Your task to perform on an android device: toggle sleep mode Image 0: 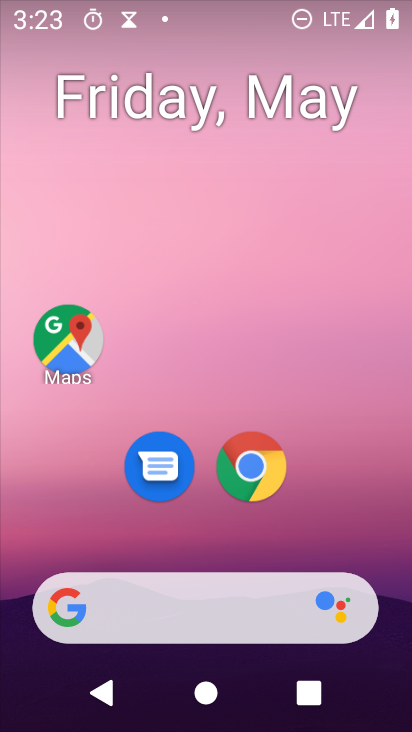
Step 0: drag from (364, 479) to (399, 25)
Your task to perform on an android device: toggle sleep mode Image 1: 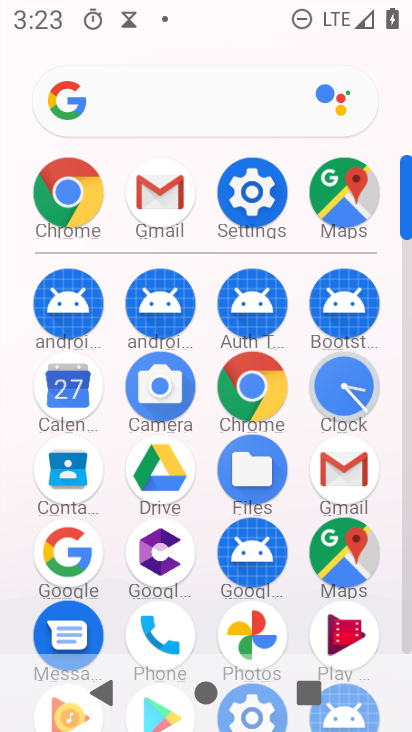
Step 1: click (350, 402)
Your task to perform on an android device: toggle sleep mode Image 2: 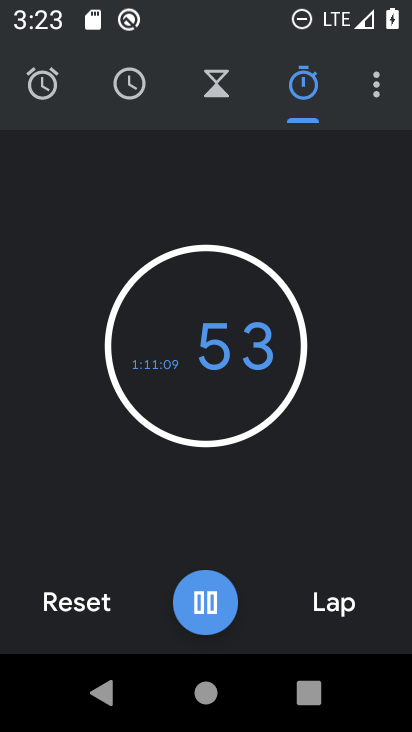
Step 2: click (372, 99)
Your task to perform on an android device: toggle sleep mode Image 3: 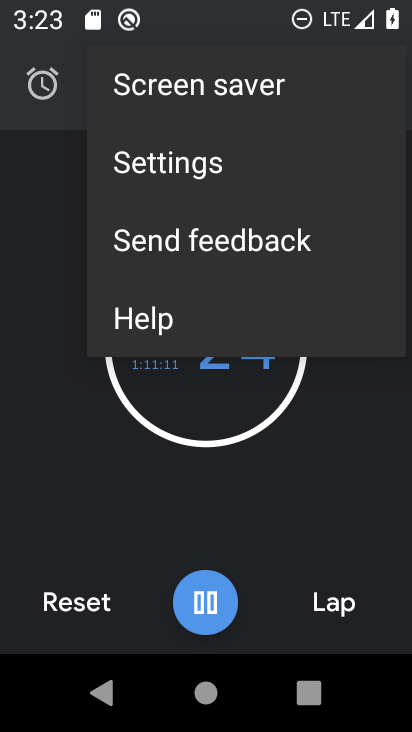
Step 3: click (218, 163)
Your task to perform on an android device: toggle sleep mode Image 4: 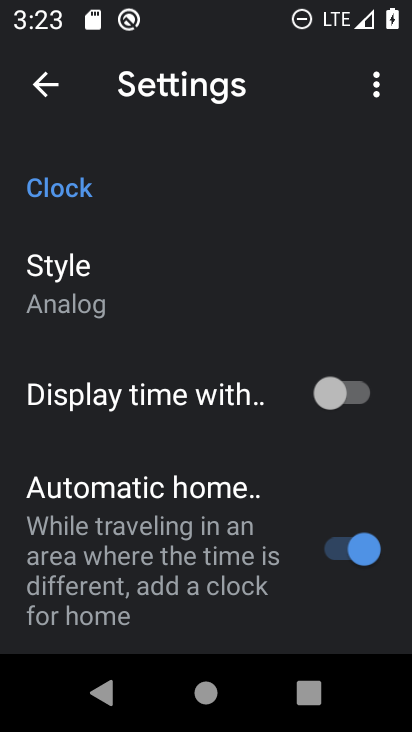
Step 4: drag from (164, 570) to (203, 172)
Your task to perform on an android device: toggle sleep mode Image 5: 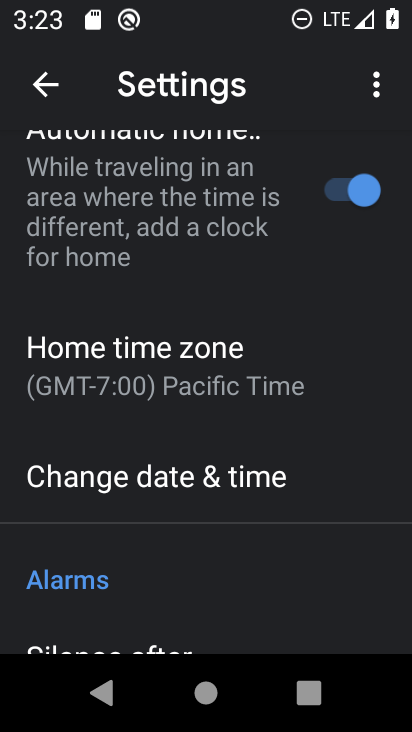
Step 5: drag from (194, 506) to (186, 155)
Your task to perform on an android device: toggle sleep mode Image 6: 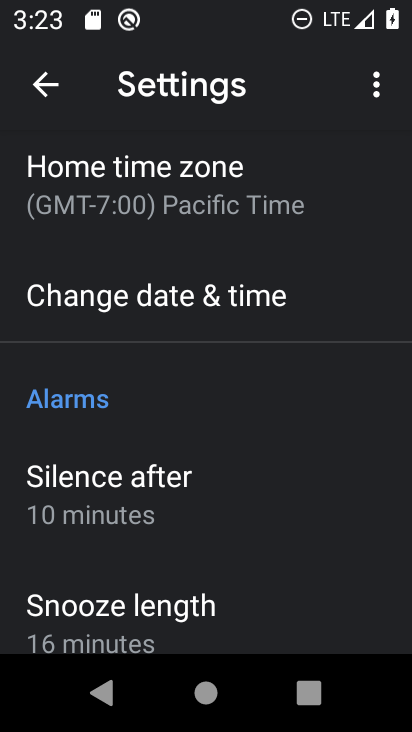
Step 6: drag from (206, 605) to (183, 299)
Your task to perform on an android device: toggle sleep mode Image 7: 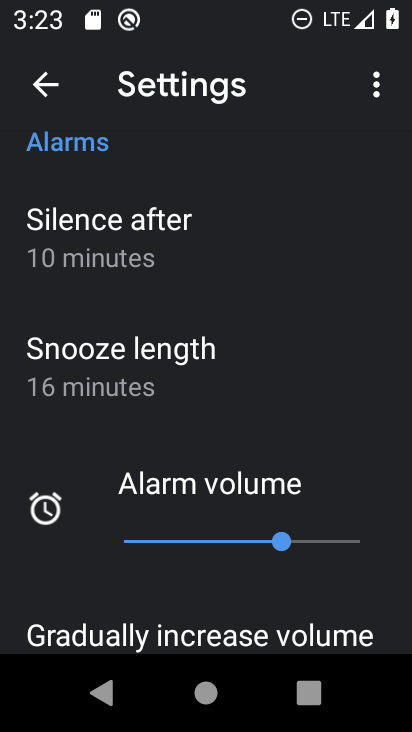
Step 7: press home button
Your task to perform on an android device: toggle sleep mode Image 8: 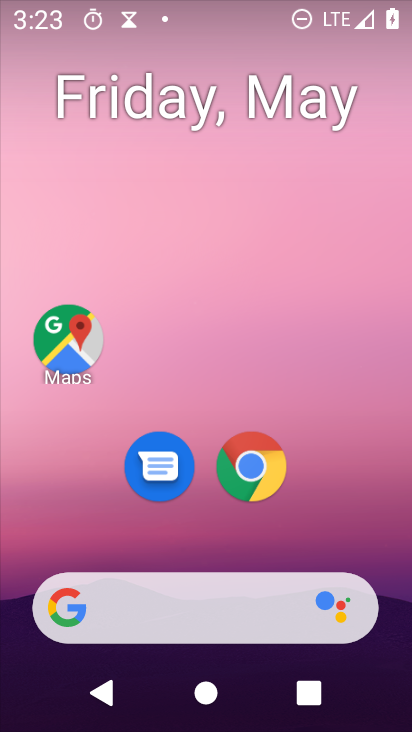
Step 8: drag from (331, 500) to (326, 131)
Your task to perform on an android device: toggle sleep mode Image 9: 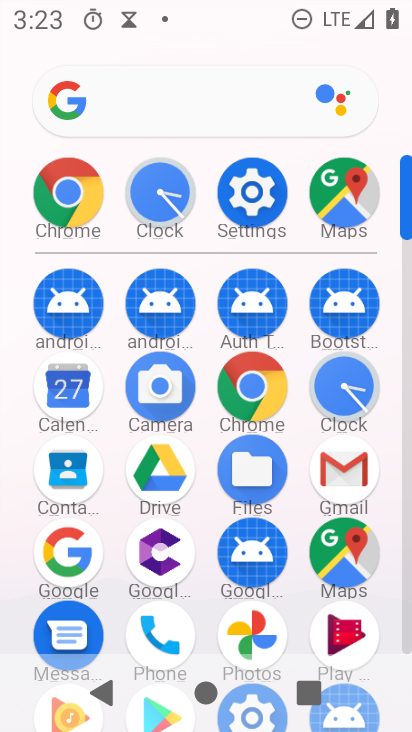
Step 9: click (270, 206)
Your task to perform on an android device: toggle sleep mode Image 10: 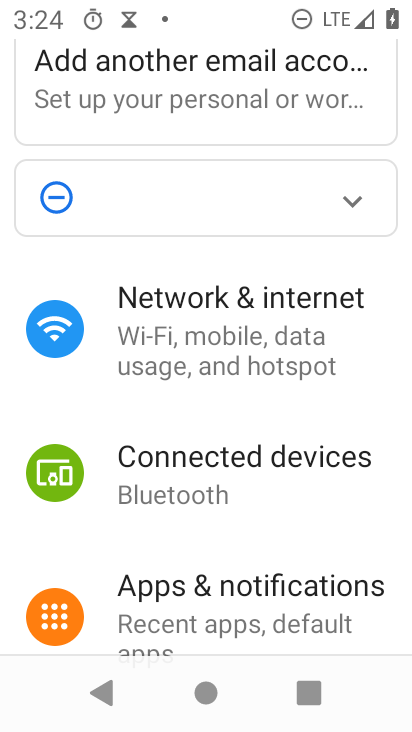
Step 10: drag from (199, 496) to (181, 234)
Your task to perform on an android device: toggle sleep mode Image 11: 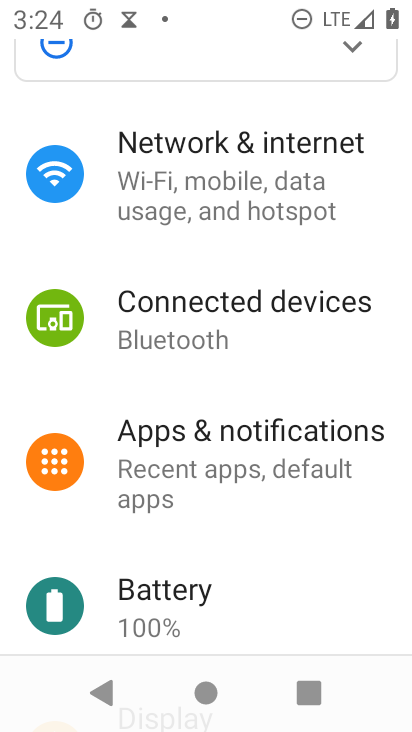
Step 11: drag from (277, 575) to (283, 251)
Your task to perform on an android device: toggle sleep mode Image 12: 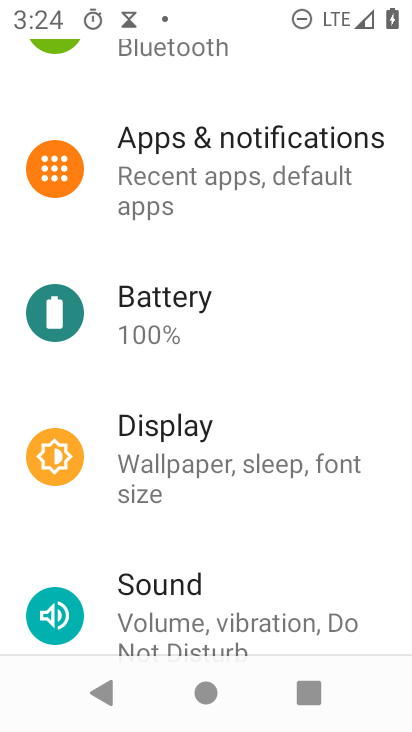
Step 12: drag from (190, 603) to (215, 270)
Your task to perform on an android device: toggle sleep mode Image 13: 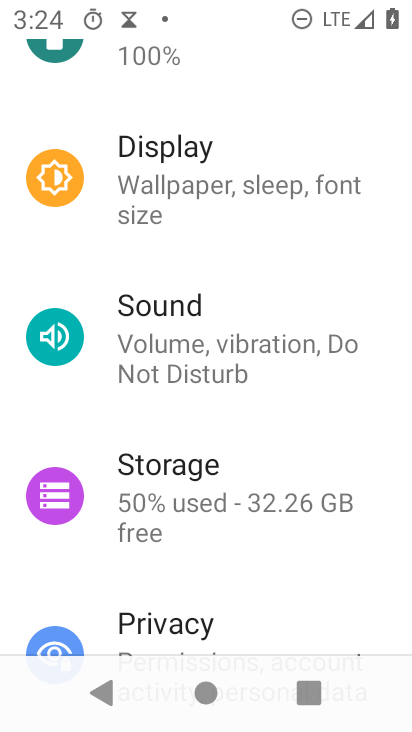
Step 13: drag from (252, 542) to (219, 250)
Your task to perform on an android device: toggle sleep mode Image 14: 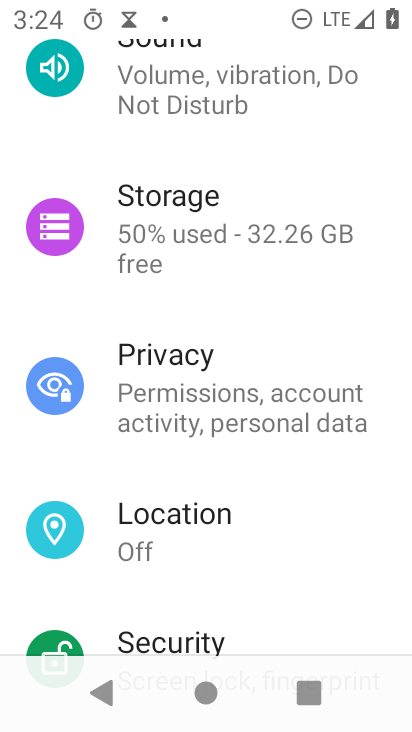
Step 14: drag from (243, 574) to (241, 257)
Your task to perform on an android device: toggle sleep mode Image 15: 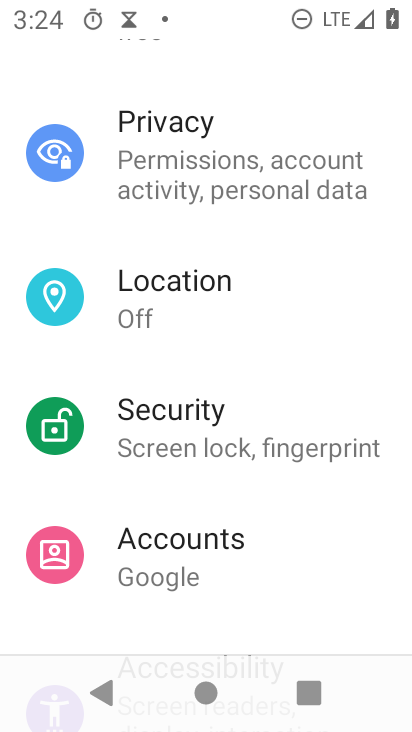
Step 15: drag from (268, 503) to (267, 132)
Your task to perform on an android device: toggle sleep mode Image 16: 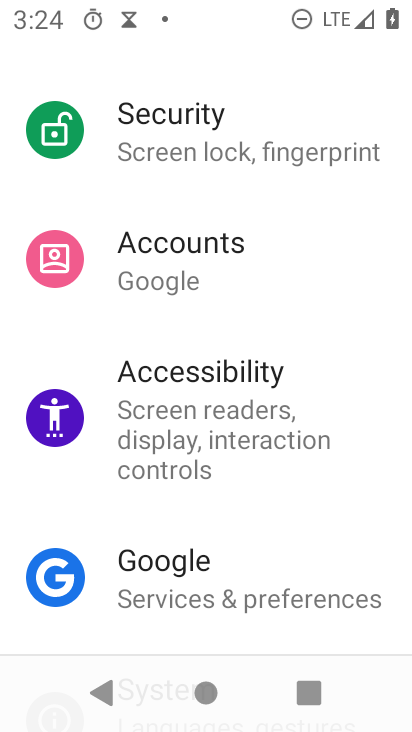
Step 16: drag from (270, 176) to (255, 506)
Your task to perform on an android device: toggle sleep mode Image 17: 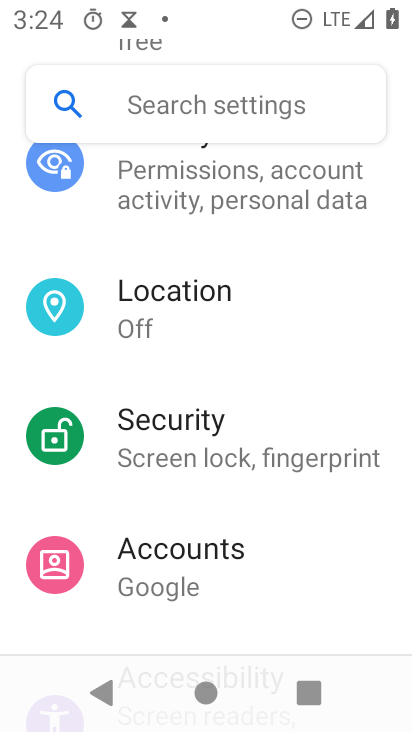
Step 17: drag from (258, 551) to (248, 191)
Your task to perform on an android device: toggle sleep mode Image 18: 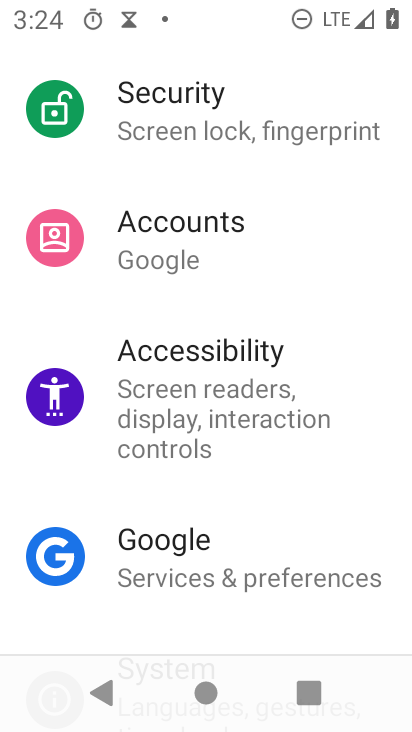
Step 18: drag from (222, 543) to (252, 190)
Your task to perform on an android device: toggle sleep mode Image 19: 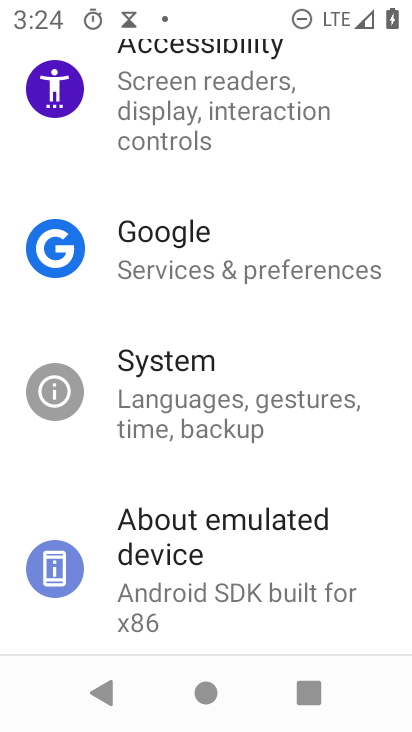
Step 19: drag from (226, 543) to (236, 182)
Your task to perform on an android device: toggle sleep mode Image 20: 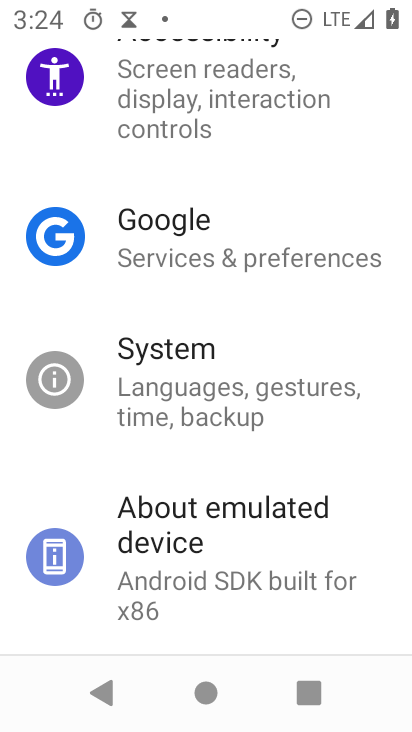
Step 20: drag from (233, 567) to (248, 239)
Your task to perform on an android device: toggle sleep mode Image 21: 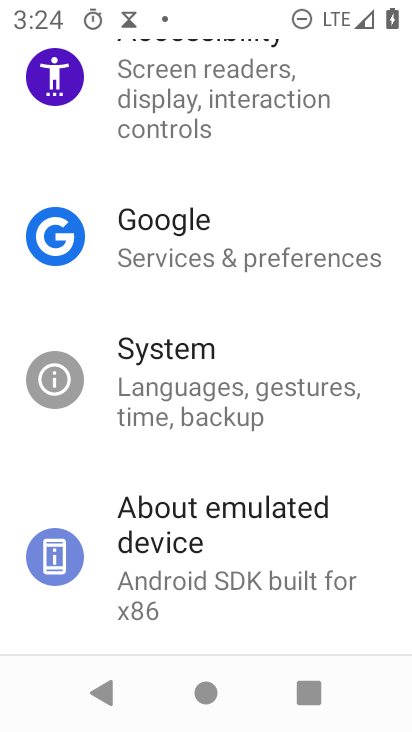
Step 21: drag from (262, 231) to (230, 657)
Your task to perform on an android device: toggle sleep mode Image 22: 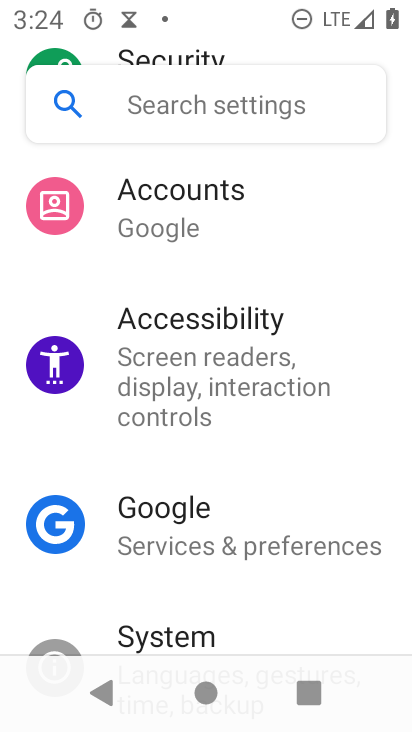
Step 22: drag from (258, 268) to (226, 675)
Your task to perform on an android device: toggle sleep mode Image 23: 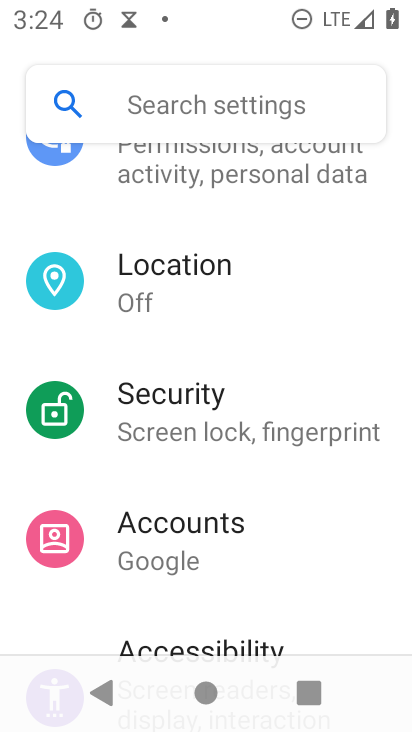
Step 23: drag from (263, 260) to (197, 672)
Your task to perform on an android device: toggle sleep mode Image 24: 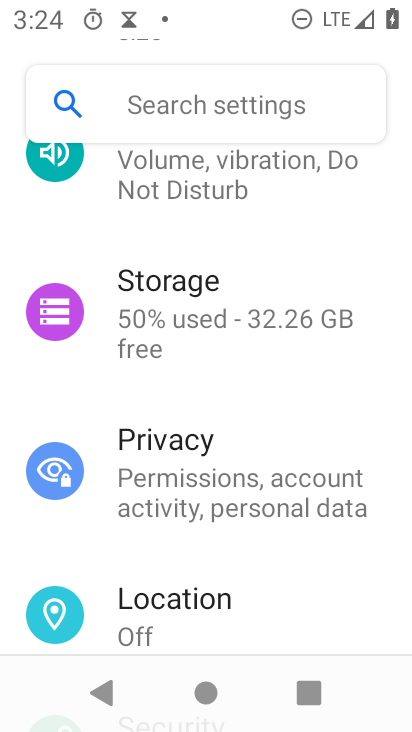
Step 24: drag from (258, 249) to (221, 674)
Your task to perform on an android device: toggle sleep mode Image 25: 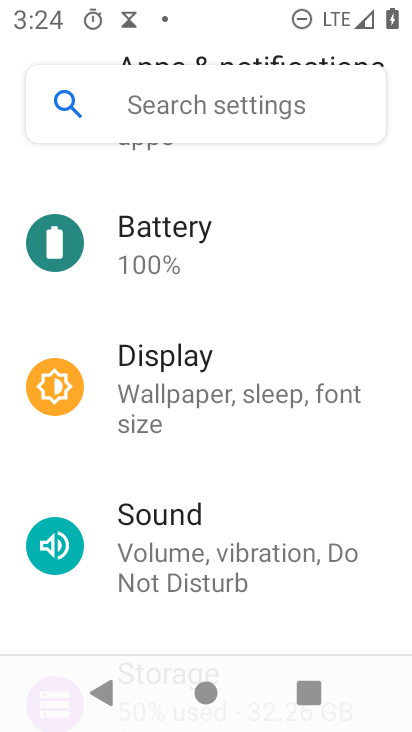
Step 25: drag from (230, 297) to (211, 655)
Your task to perform on an android device: toggle sleep mode Image 26: 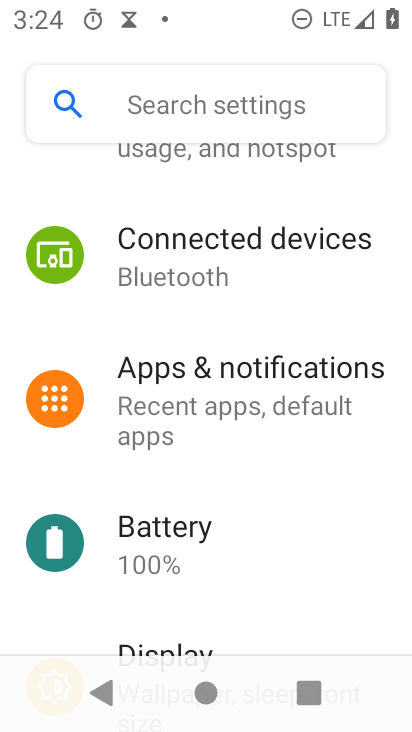
Step 26: drag from (243, 324) to (191, 712)
Your task to perform on an android device: toggle sleep mode Image 27: 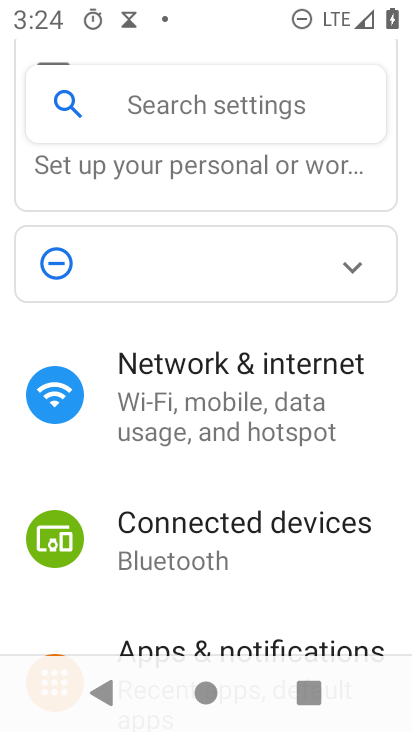
Step 27: drag from (198, 615) to (183, 237)
Your task to perform on an android device: toggle sleep mode Image 28: 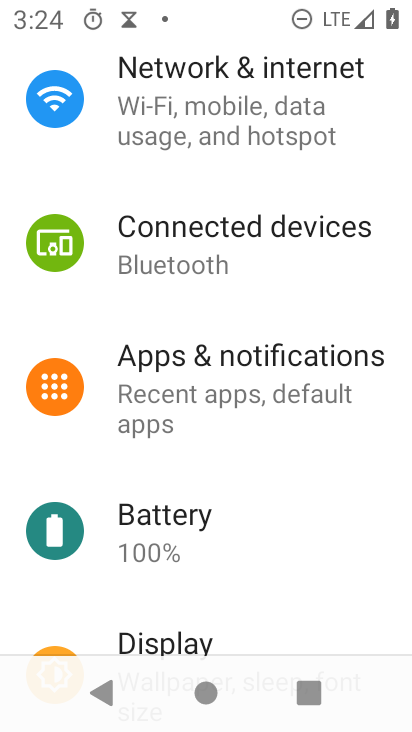
Step 28: drag from (215, 590) to (186, 220)
Your task to perform on an android device: toggle sleep mode Image 29: 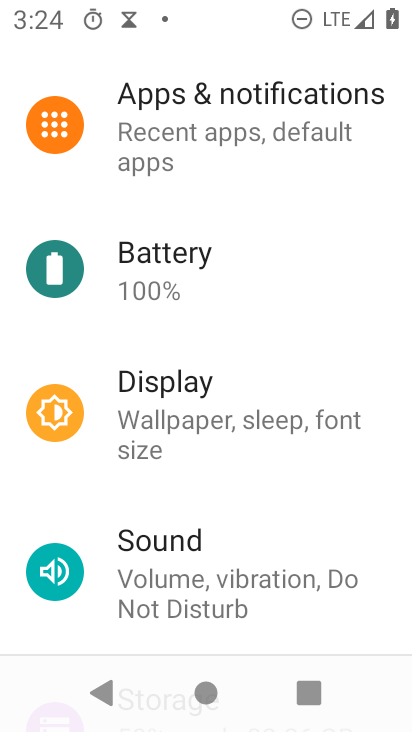
Step 29: drag from (236, 583) to (228, 221)
Your task to perform on an android device: toggle sleep mode Image 30: 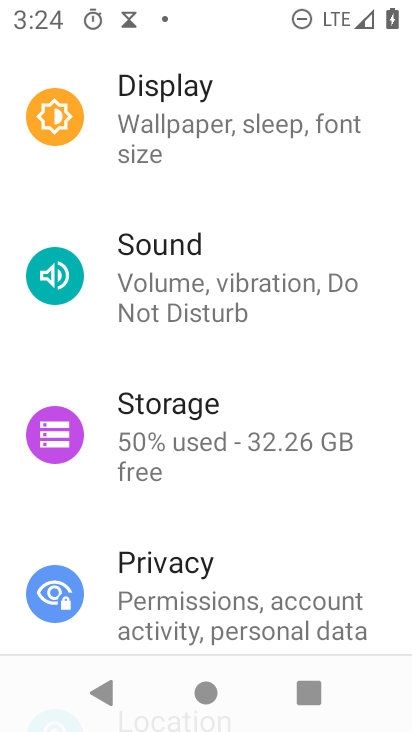
Step 30: drag from (233, 375) to (234, 160)
Your task to perform on an android device: toggle sleep mode Image 31: 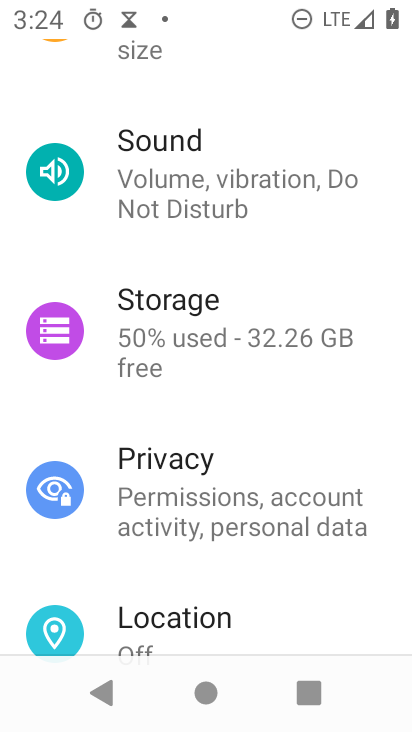
Step 31: drag from (257, 549) to (247, 185)
Your task to perform on an android device: toggle sleep mode Image 32: 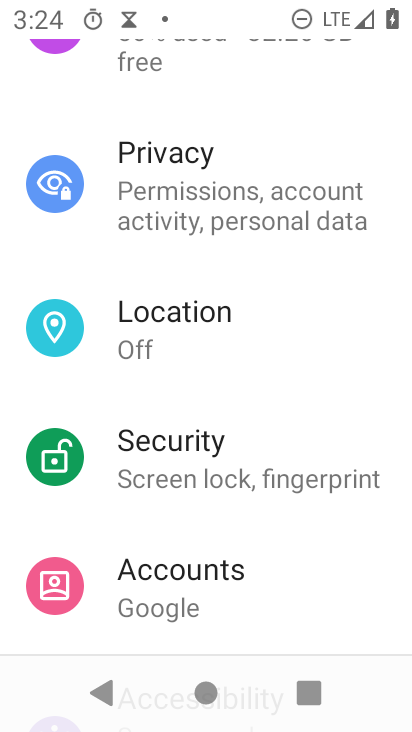
Step 32: drag from (253, 252) to (228, 640)
Your task to perform on an android device: toggle sleep mode Image 33: 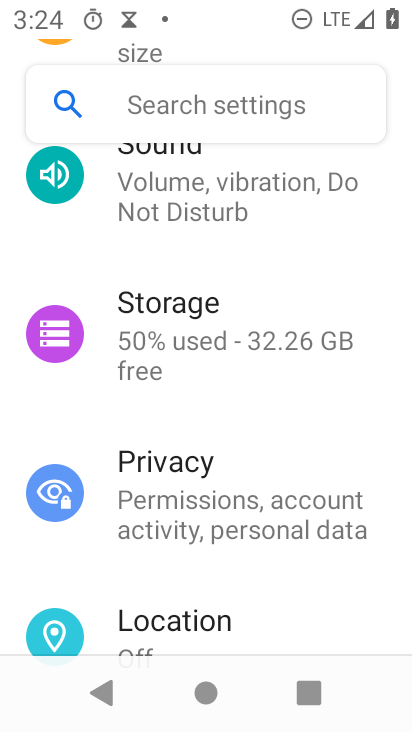
Step 33: drag from (271, 178) to (267, 648)
Your task to perform on an android device: toggle sleep mode Image 34: 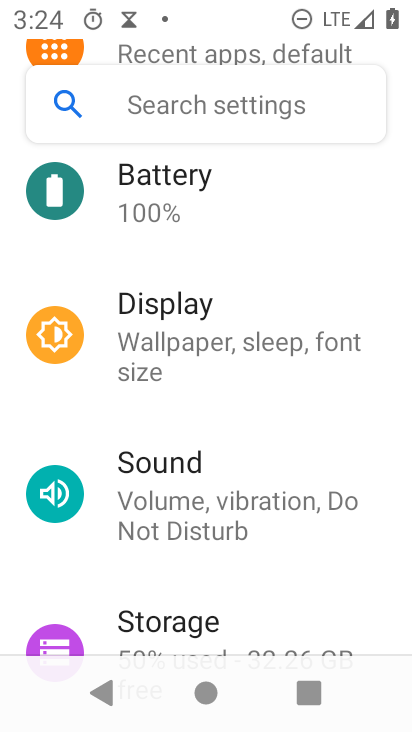
Step 34: drag from (295, 134) to (274, 432)
Your task to perform on an android device: toggle sleep mode Image 35: 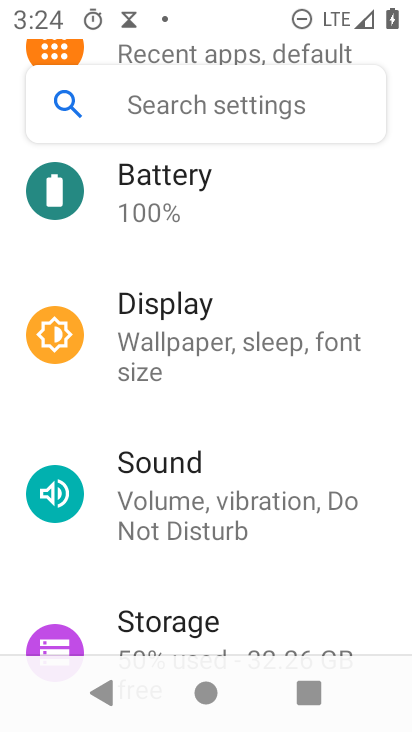
Step 35: click (161, 291)
Your task to perform on an android device: toggle sleep mode Image 36: 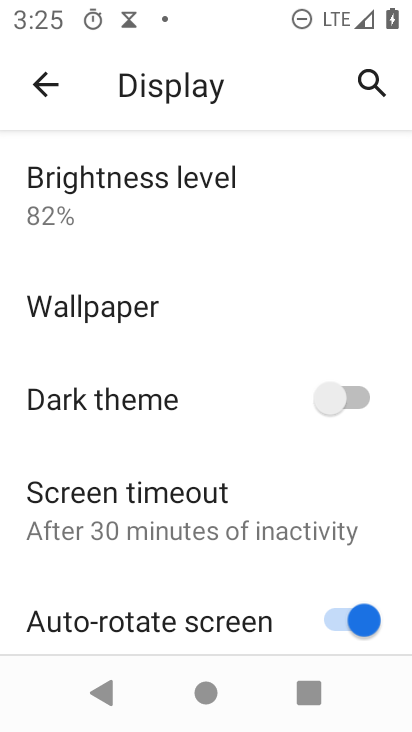
Step 36: click (177, 508)
Your task to perform on an android device: toggle sleep mode Image 37: 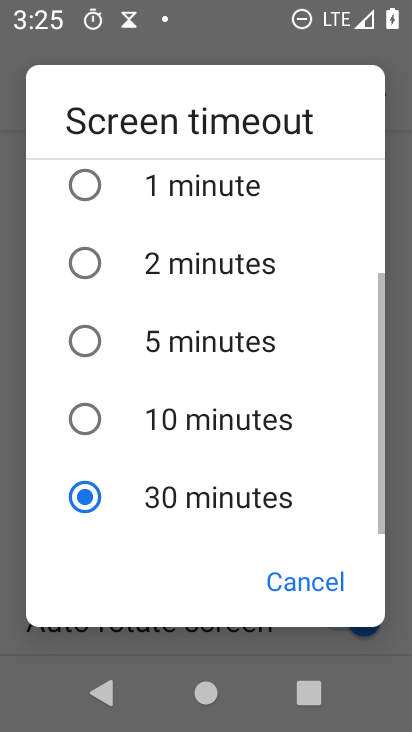
Step 37: click (96, 337)
Your task to perform on an android device: toggle sleep mode Image 38: 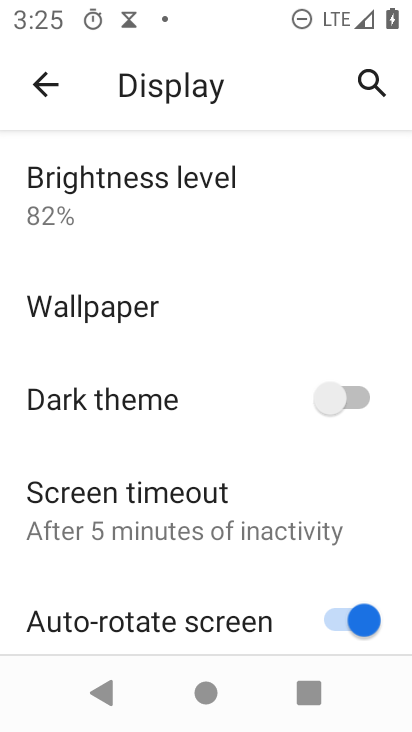
Step 38: task complete